Your task to perform on an android device: Open internet settings Image 0: 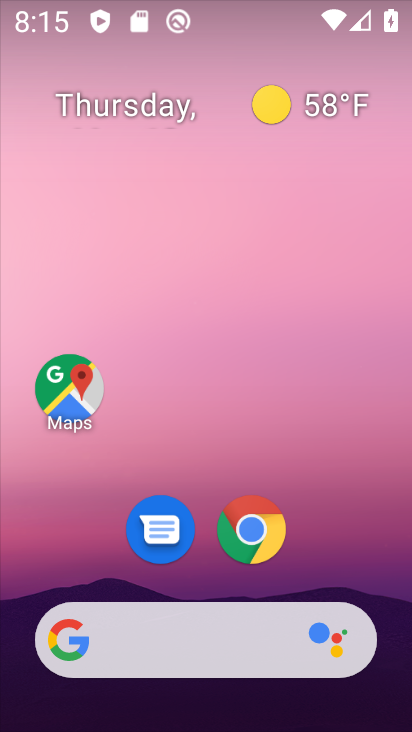
Step 0: drag from (216, 324) to (227, 31)
Your task to perform on an android device: Open internet settings Image 1: 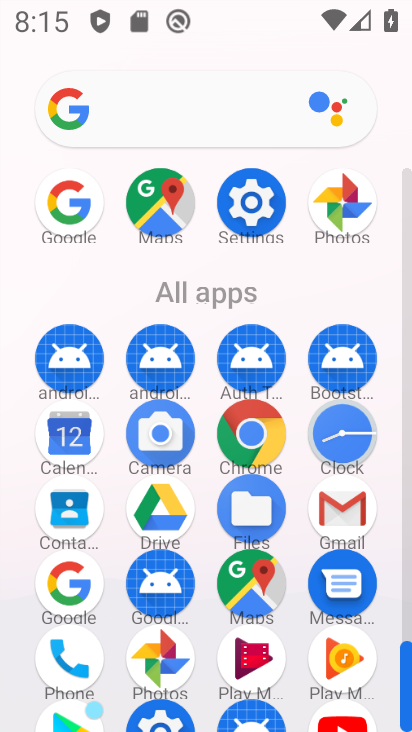
Step 1: click (252, 207)
Your task to perform on an android device: Open internet settings Image 2: 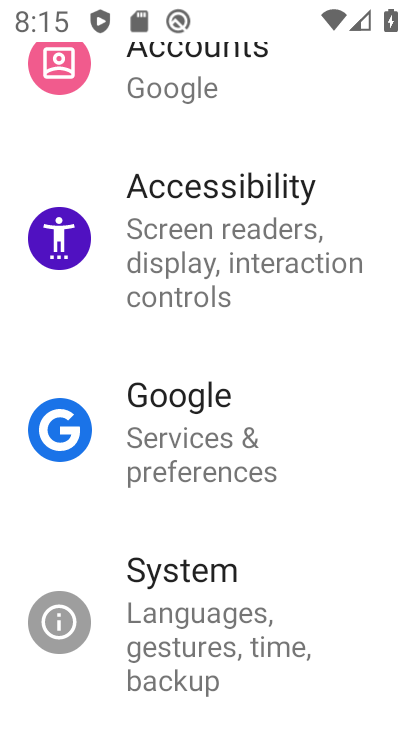
Step 2: drag from (221, 137) to (275, 711)
Your task to perform on an android device: Open internet settings Image 3: 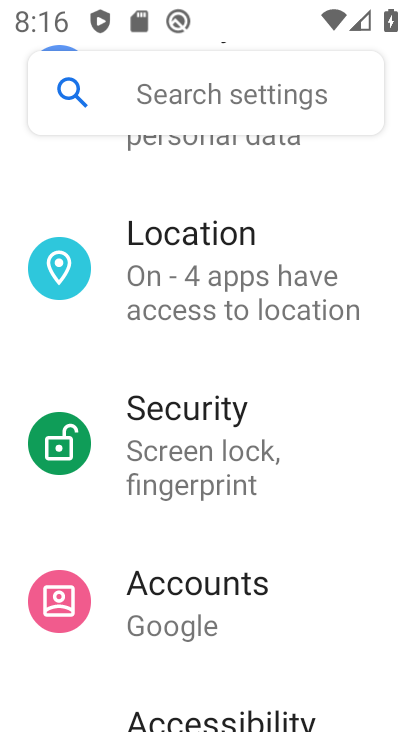
Step 3: drag from (211, 227) to (296, 730)
Your task to perform on an android device: Open internet settings Image 4: 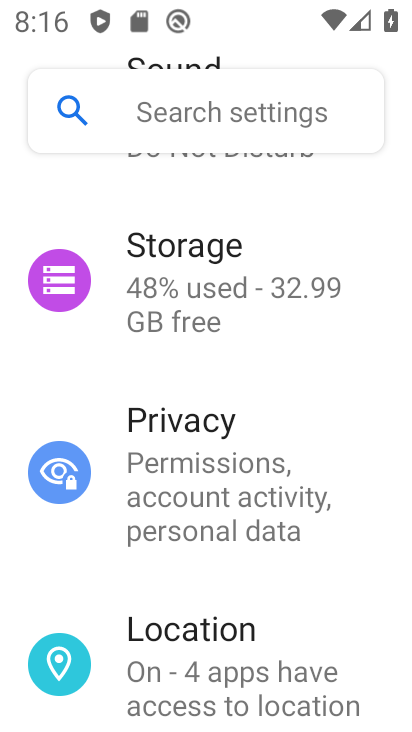
Step 4: drag from (182, 289) to (345, 720)
Your task to perform on an android device: Open internet settings Image 5: 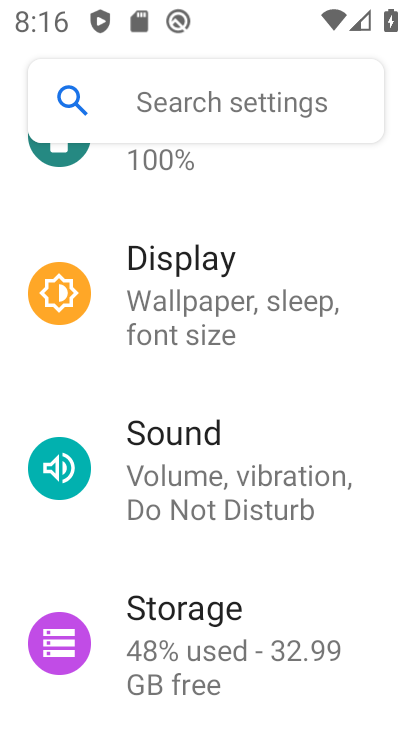
Step 5: drag from (198, 210) to (407, 572)
Your task to perform on an android device: Open internet settings Image 6: 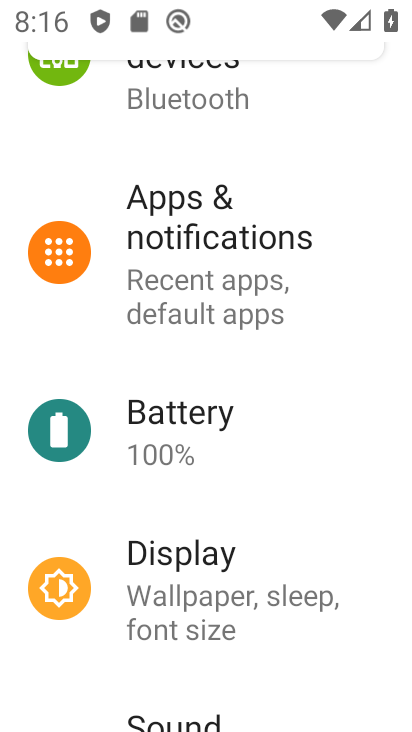
Step 6: drag from (141, 262) to (341, 718)
Your task to perform on an android device: Open internet settings Image 7: 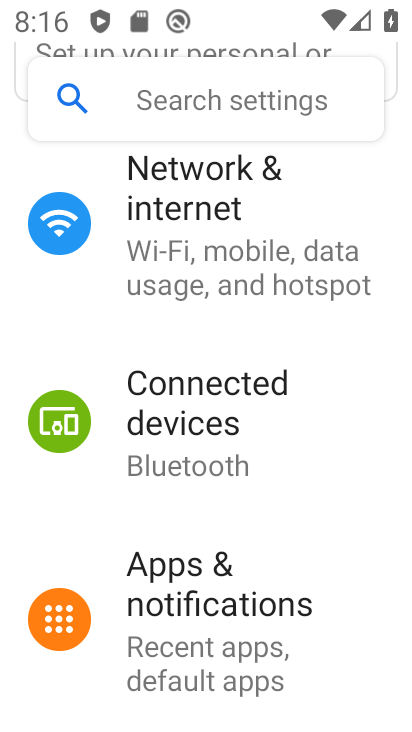
Step 7: click (160, 228)
Your task to perform on an android device: Open internet settings Image 8: 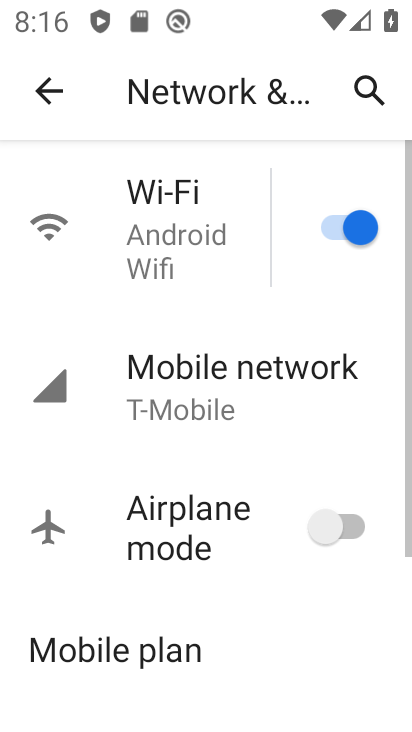
Step 8: click (179, 189)
Your task to perform on an android device: Open internet settings Image 9: 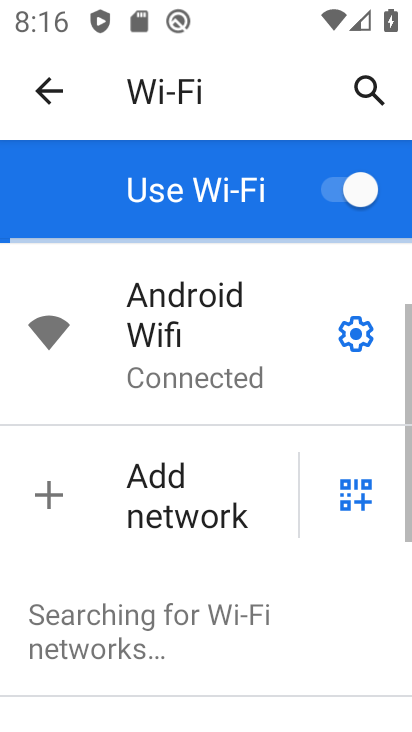
Step 9: click (352, 340)
Your task to perform on an android device: Open internet settings Image 10: 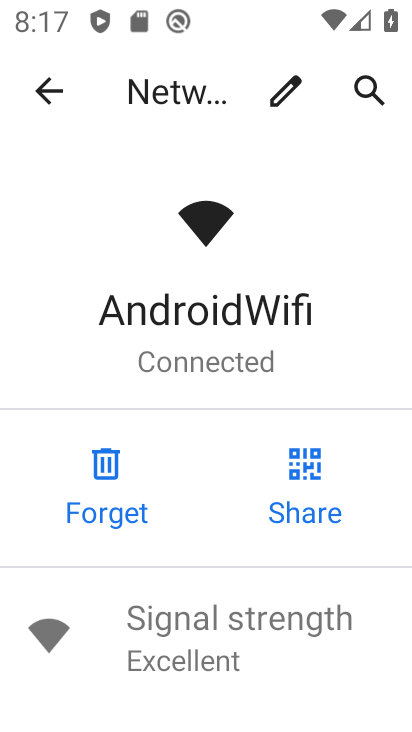
Step 10: task complete